Your task to perform on an android device: Open display settings Image 0: 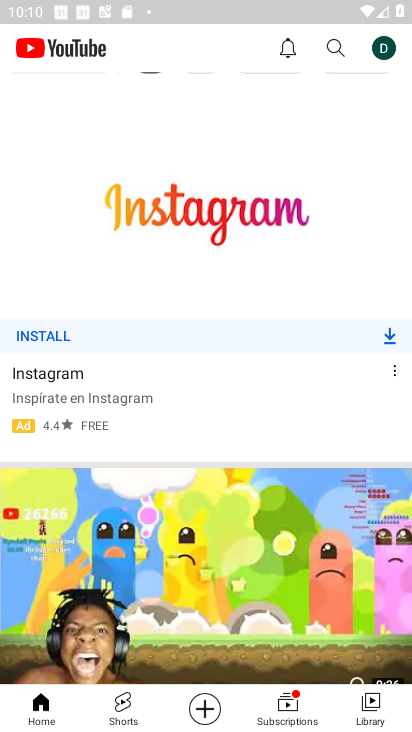
Step 0: press home button
Your task to perform on an android device: Open display settings Image 1: 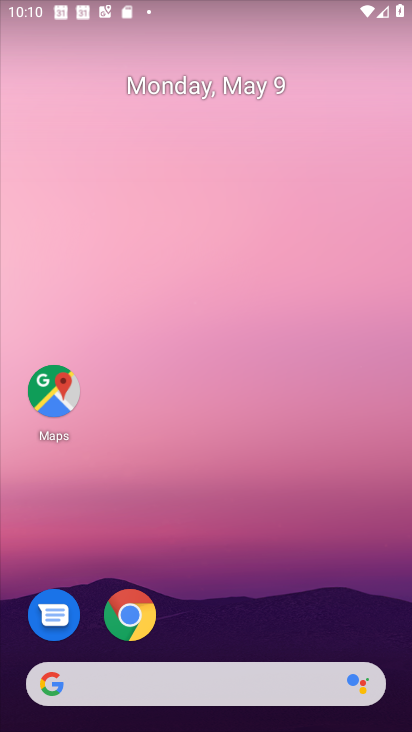
Step 1: drag from (325, 689) to (241, 212)
Your task to perform on an android device: Open display settings Image 2: 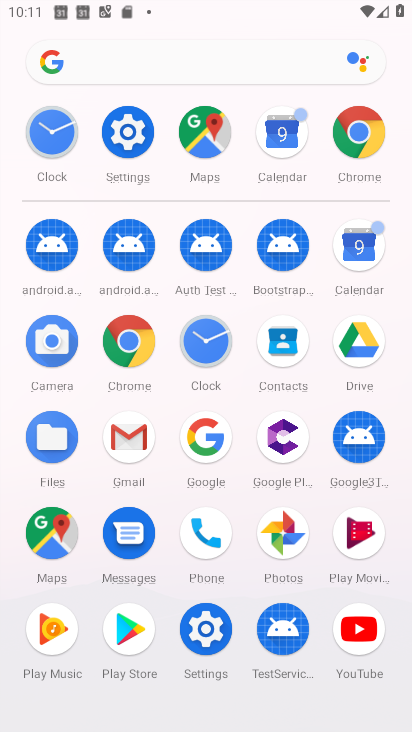
Step 2: click (213, 628)
Your task to perform on an android device: Open display settings Image 3: 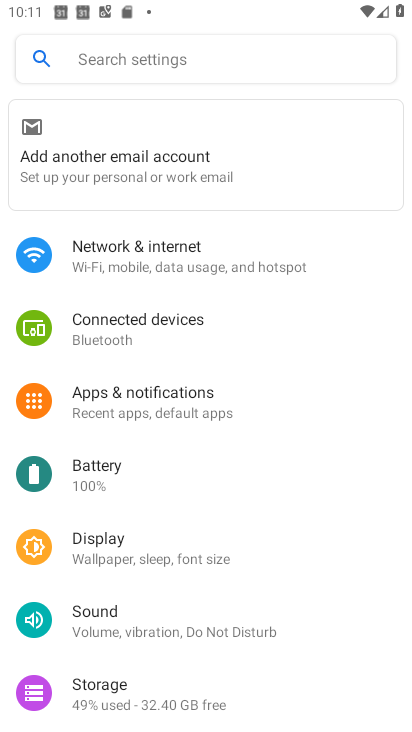
Step 3: click (127, 540)
Your task to perform on an android device: Open display settings Image 4: 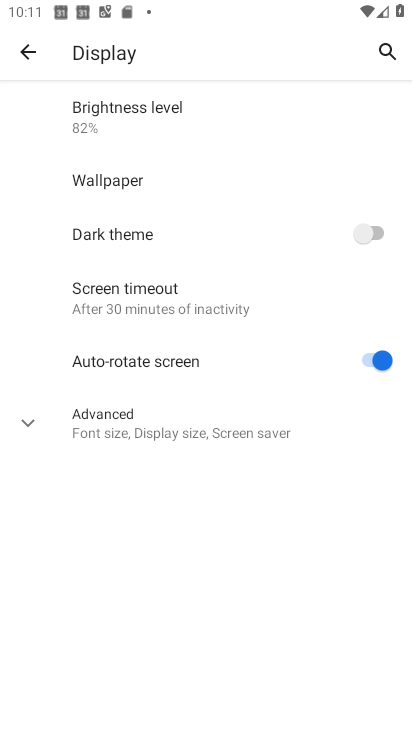
Step 4: task complete